Your task to perform on an android device: Open the calendar and show me this week's events? Image 0: 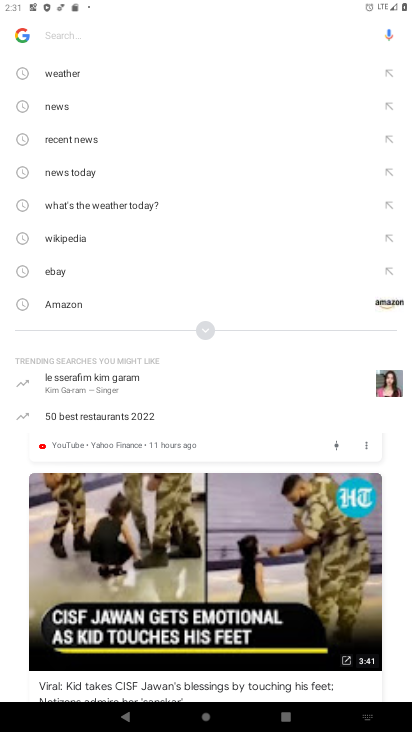
Step 0: press home button
Your task to perform on an android device: Open the calendar and show me this week's events? Image 1: 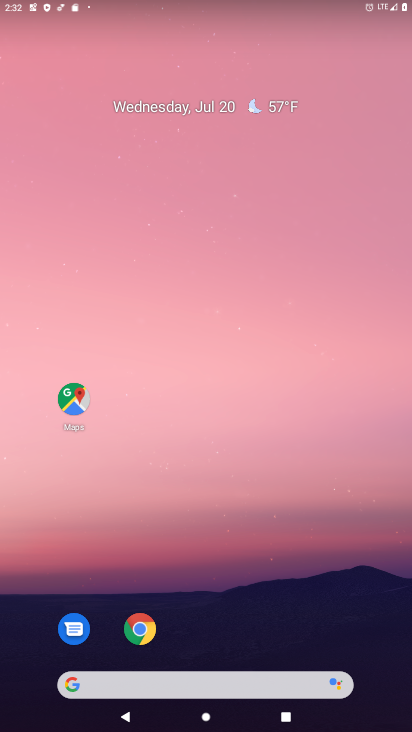
Step 1: drag from (369, 656) to (342, 23)
Your task to perform on an android device: Open the calendar and show me this week's events? Image 2: 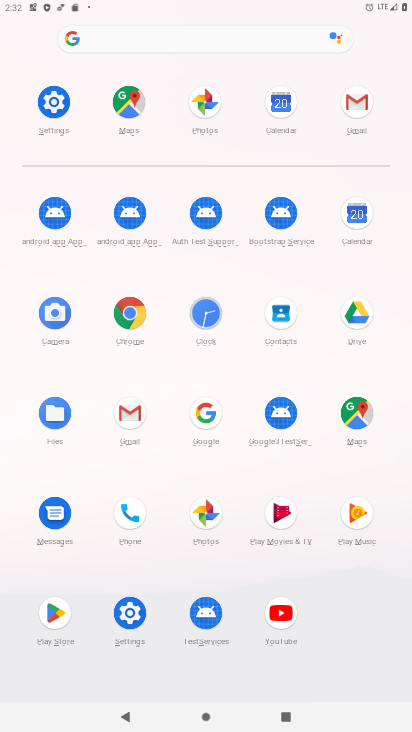
Step 2: click (356, 212)
Your task to perform on an android device: Open the calendar and show me this week's events? Image 3: 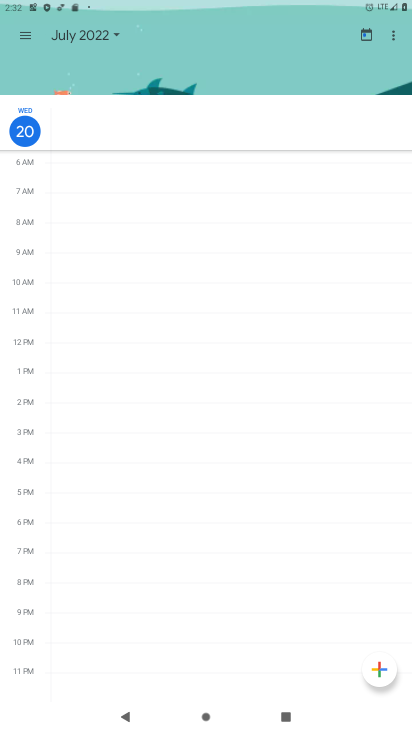
Step 3: click (26, 38)
Your task to perform on an android device: Open the calendar and show me this week's events? Image 4: 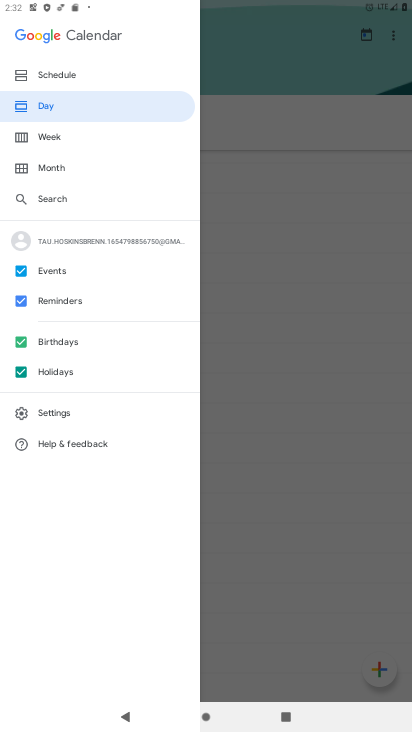
Step 4: click (46, 135)
Your task to perform on an android device: Open the calendar and show me this week's events? Image 5: 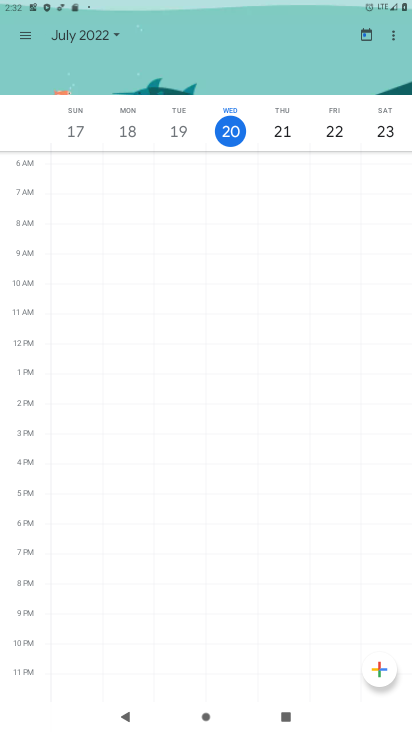
Step 5: click (112, 33)
Your task to perform on an android device: Open the calendar and show me this week's events? Image 6: 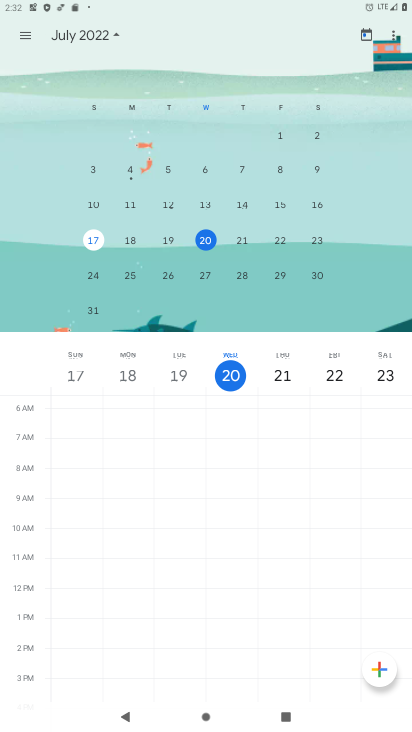
Step 6: click (205, 233)
Your task to perform on an android device: Open the calendar and show me this week's events? Image 7: 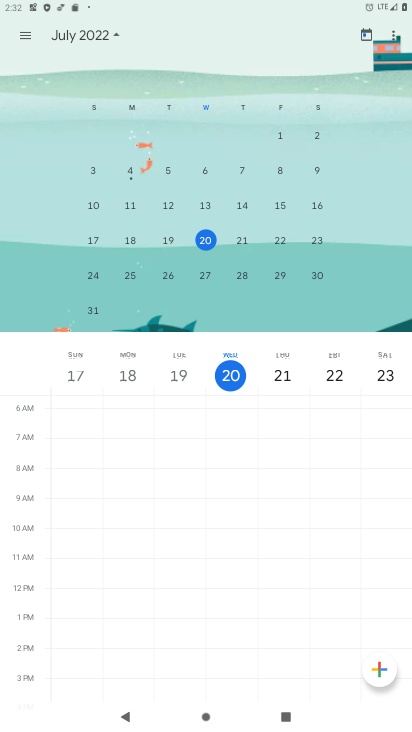
Step 7: task complete